Your task to perform on an android device: Open calendar and show me the first week of next month Image 0: 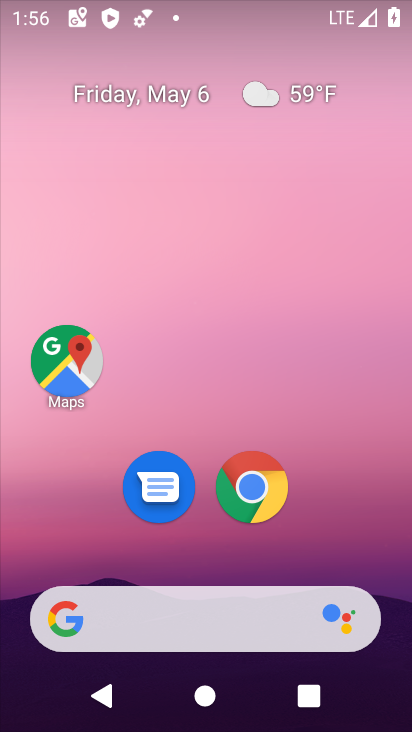
Step 0: drag from (202, 589) to (281, 183)
Your task to perform on an android device: Open calendar and show me the first week of next month Image 1: 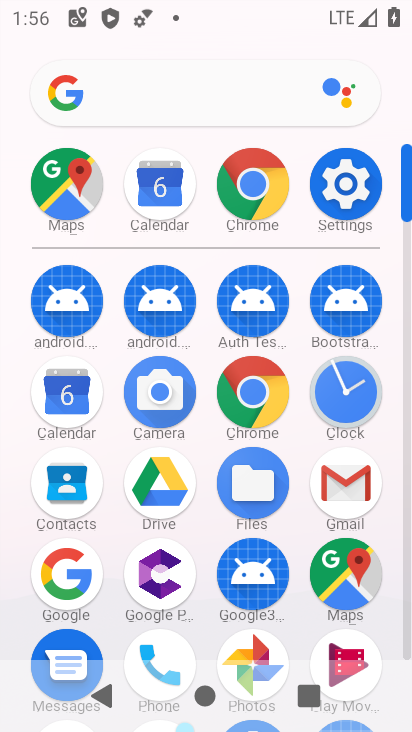
Step 1: click (62, 422)
Your task to perform on an android device: Open calendar and show me the first week of next month Image 2: 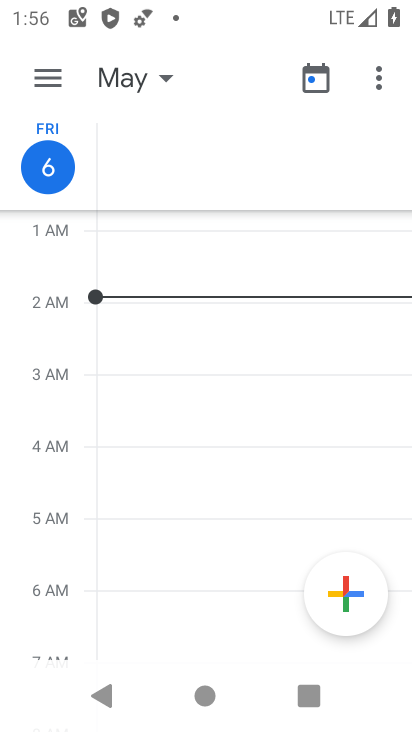
Step 2: click (150, 84)
Your task to perform on an android device: Open calendar and show me the first week of next month Image 3: 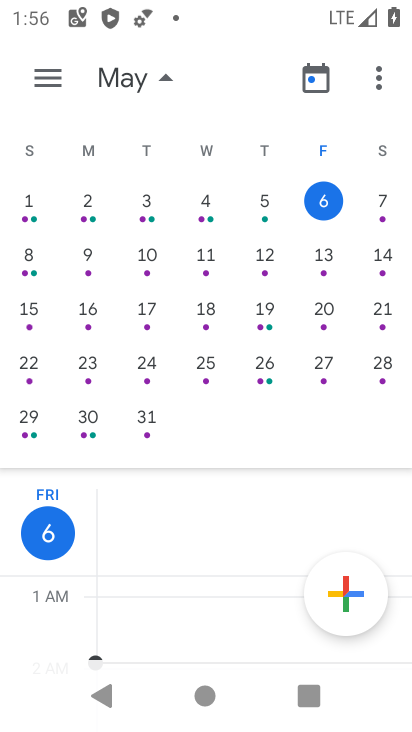
Step 3: task complete